Your task to perform on an android device: search for starred emails in the gmail app Image 0: 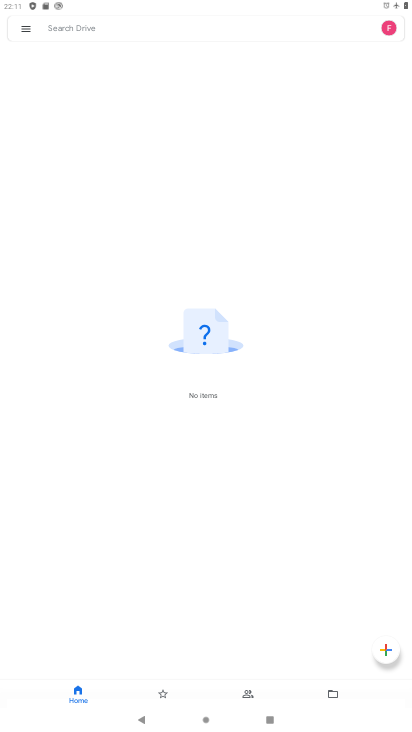
Step 0: press home button
Your task to perform on an android device: search for starred emails in the gmail app Image 1: 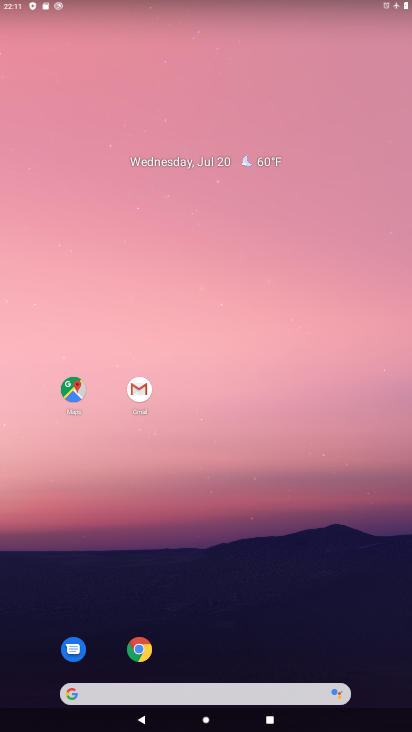
Step 1: drag from (382, 627) to (392, 111)
Your task to perform on an android device: search for starred emails in the gmail app Image 2: 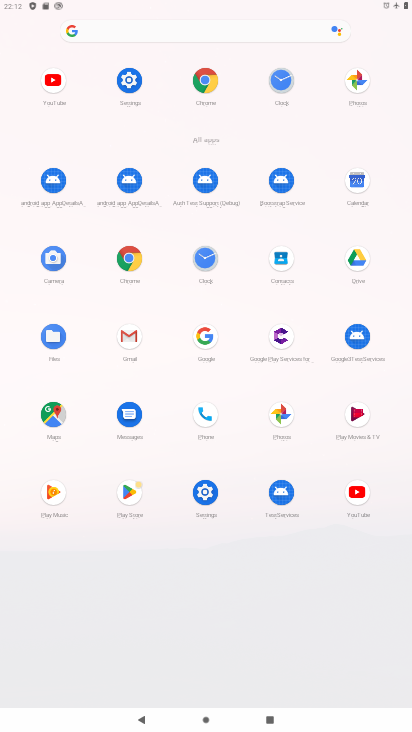
Step 2: click (128, 337)
Your task to perform on an android device: search for starred emails in the gmail app Image 3: 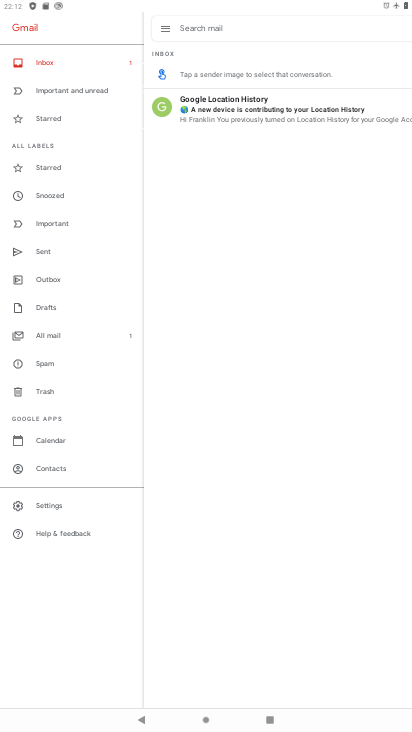
Step 3: click (45, 115)
Your task to perform on an android device: search for starred emails in the gmail app Image 4: 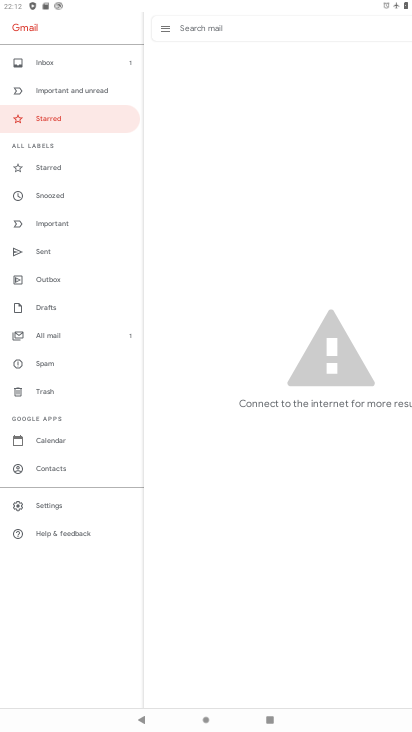
Step 4: task complete